Your task to perform on an android device: create a new album in the google photos Image 0: 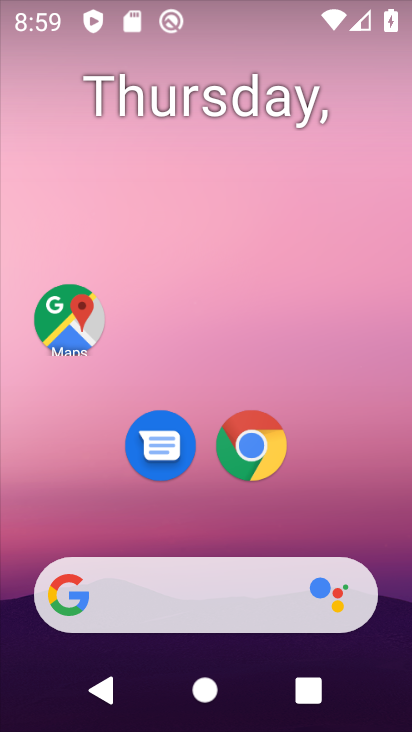
Step 0: drag from (370, 517) to (376, 16)
Your task to perform on an android device: create a new album in the google photos Image 1: 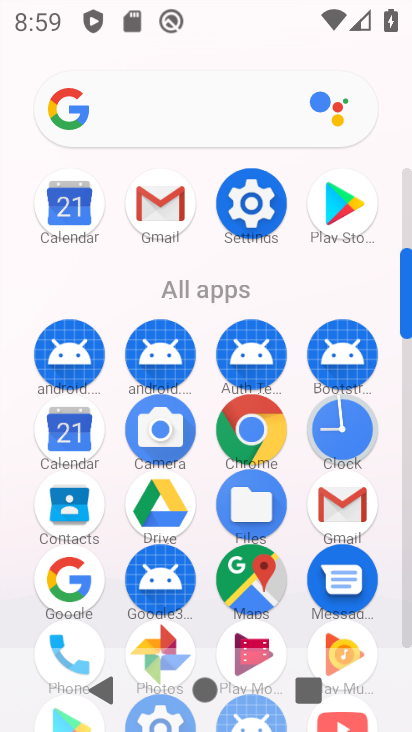
Step 1: drag from (400, 561) to (401, 425)
Your task to perform on an android device: create a new album in the google photos Image 2: 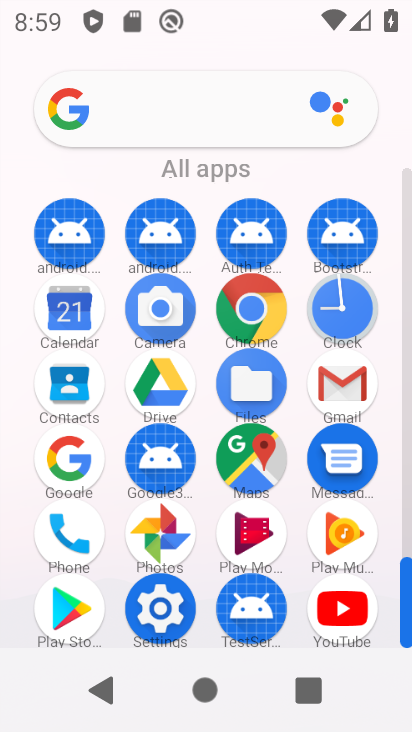
Step 2: click (146, 540)
Your task to perform on an android device: create a new album in the google photos Image 3: 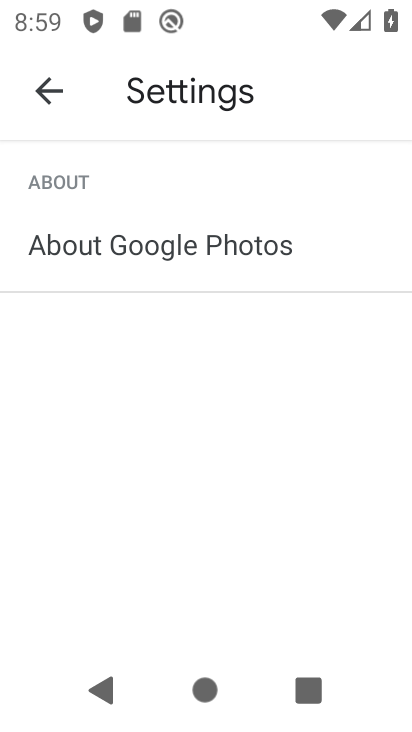
Step 3: click (53, 101)
Your task to perform on an android device: create a new album in the google photos Image 4: 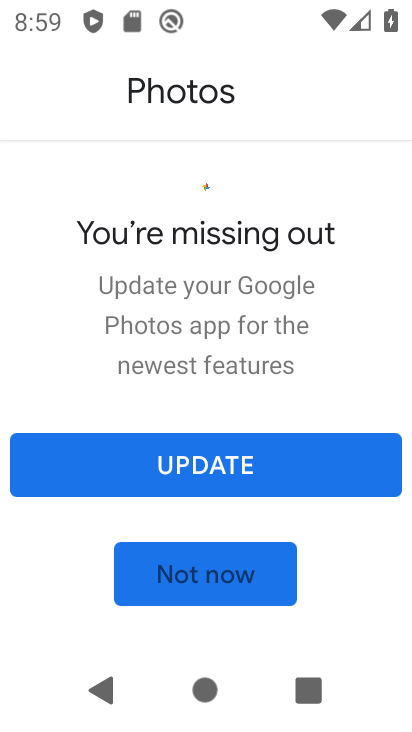
Step 4: click (174, 579)
Your task to perform on an android device: create a new album in the google photos Image 5: 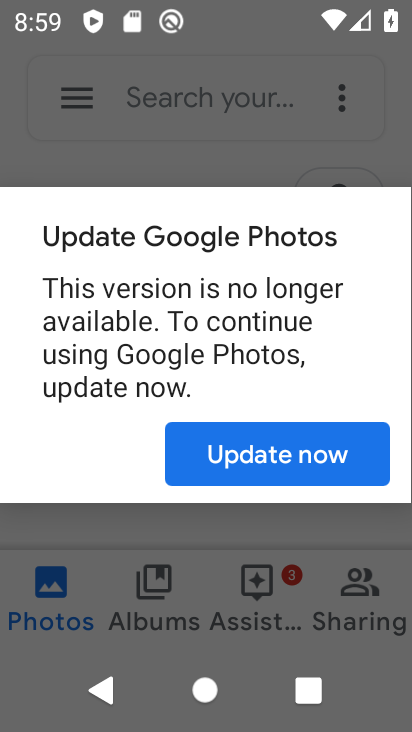
Step 5: click (265, 459)
Your task to perform on an android device: create a new album in the google photos Image 6: 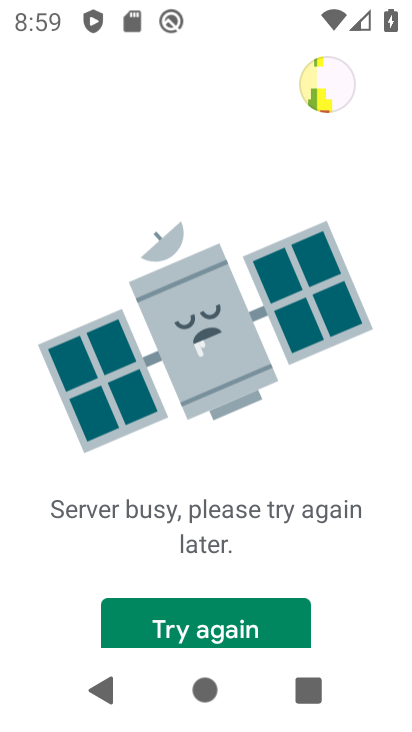
Step 6: press back button
Your task to perform on an android device: create a new album in the google photos Image 7: 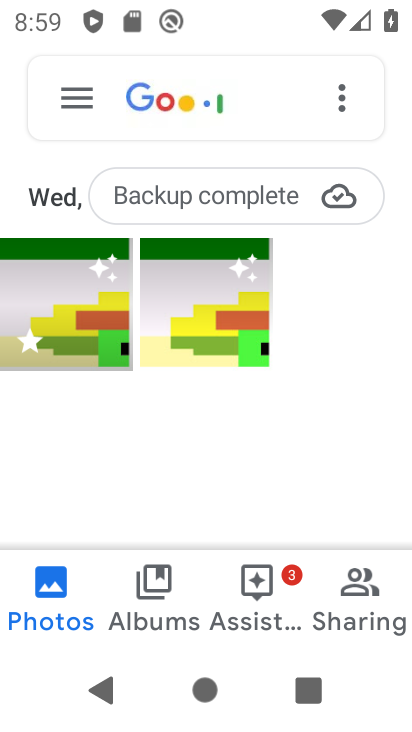
Step 7: click (82, 296)
Your task to perform on an android device: create a new album in the google photos Image 8: 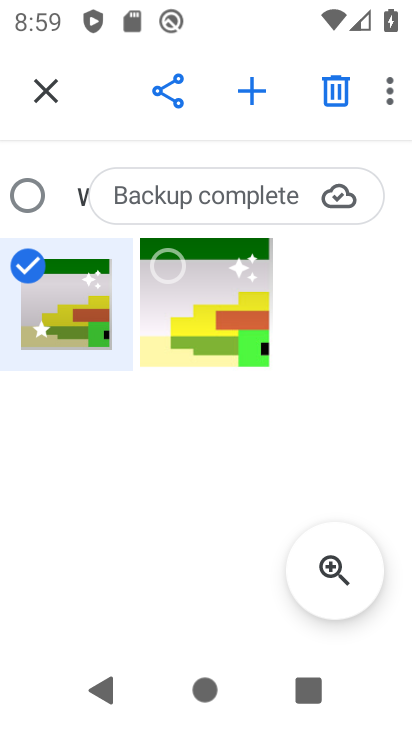
Step 8: click (248, 92)
Your task to perform on an android device: create a new album in the google photos Image 9: 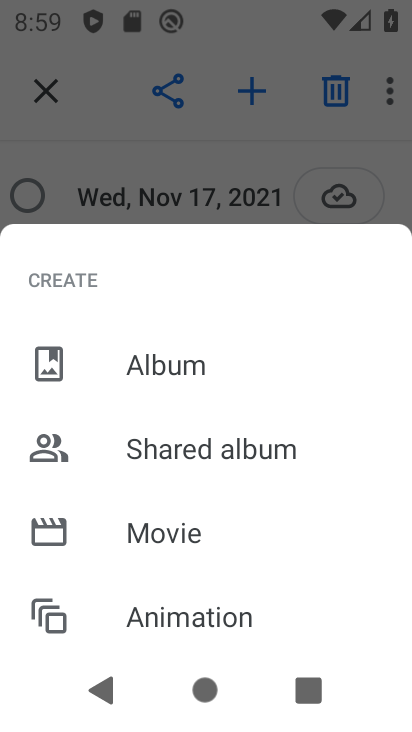
Step 9: click (178, 354)
Your task to perform on an android device: create a new album in the google photos Image 10: 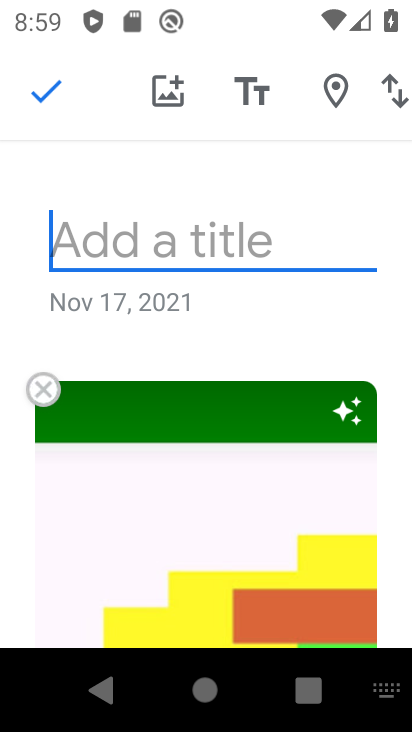
Step 10: click (196, 247)
Your task to perform on an android device: create a new album in the google photos Image 11: 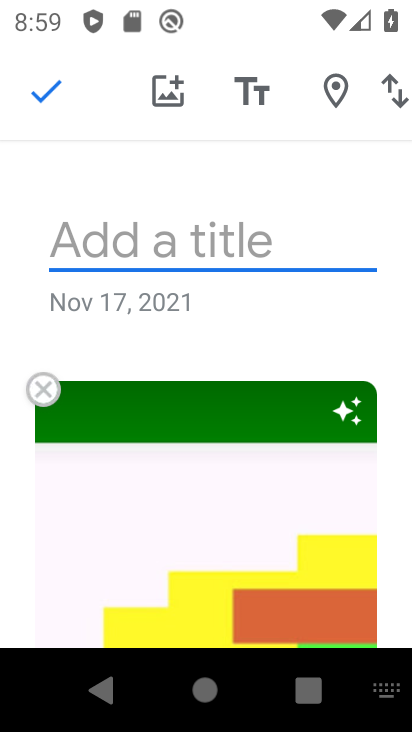
Step 11: type "my pic"
Your task to perform on an android device: create a new album in the google photos Image 12: 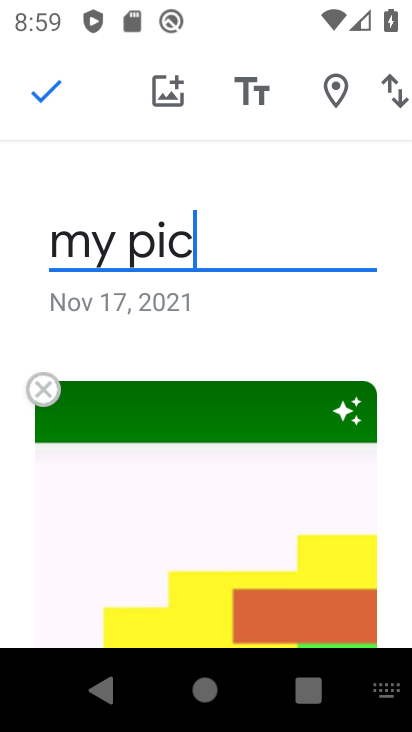
Step 12: click (35, 90)
Your task to perform on an android device: create a new album in the google photos Image 13: 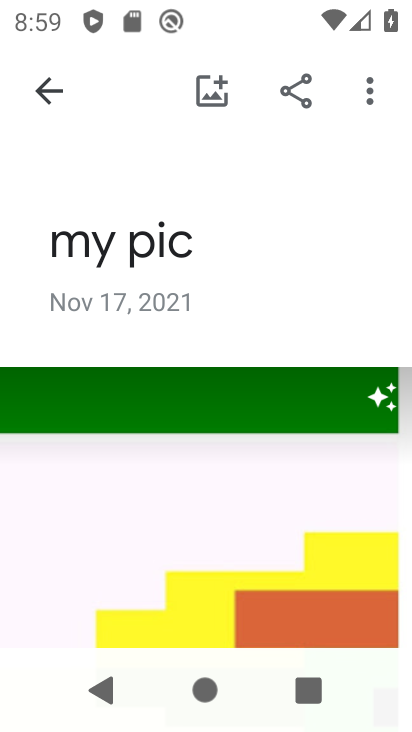
Step 13: task complete